Your task to perform on an android device: Go to Google Image 0: 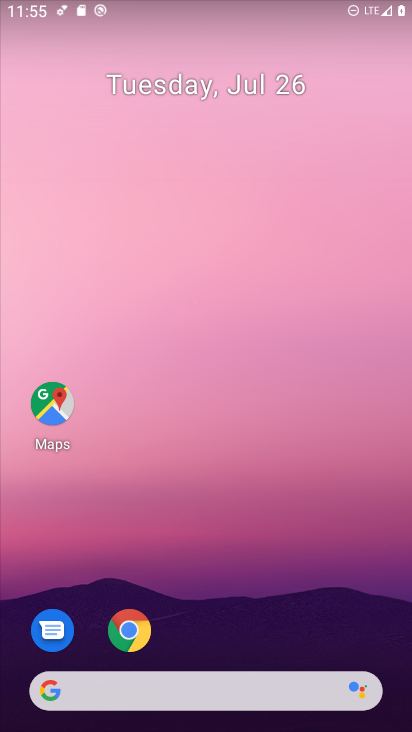
Step 0: click (128, 631)
Your task to perform on an android device: Go to Google Image 1: 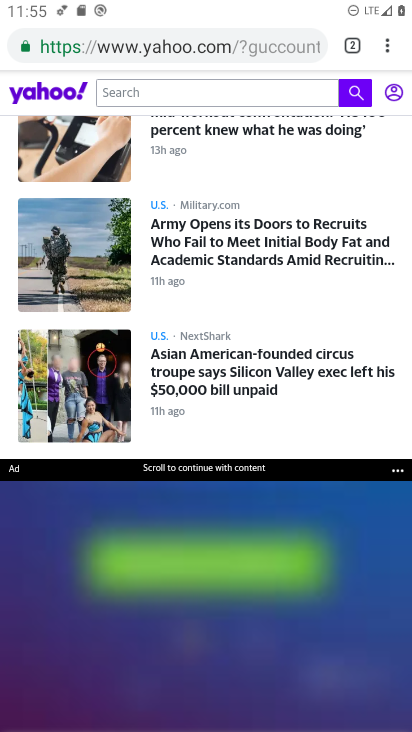
Step 1: task complete